Your task to perform on an android device: Open CNN.com Image 0: 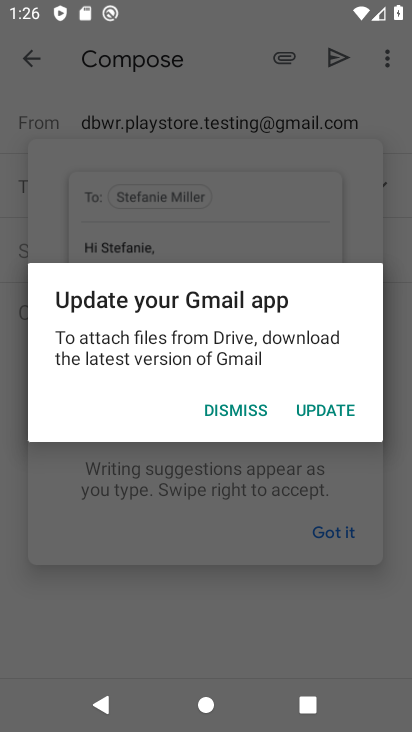
Step 0: press home button
Your task to perform on an android device: Open CNN.com Image 1: 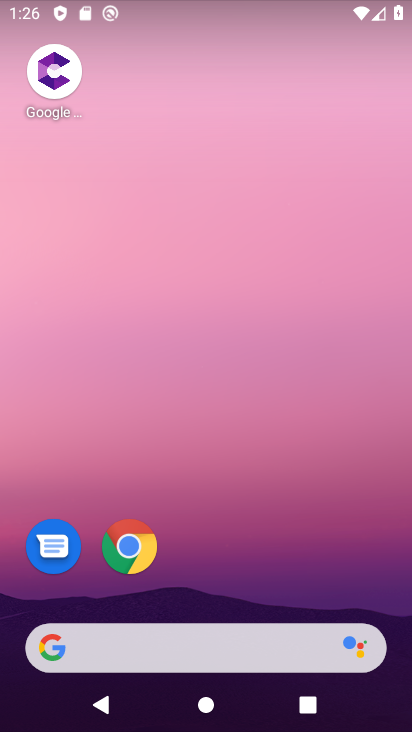
Step 1: click (133, 534)
Your task to perform on an android device: Open CNN.com Image 2: 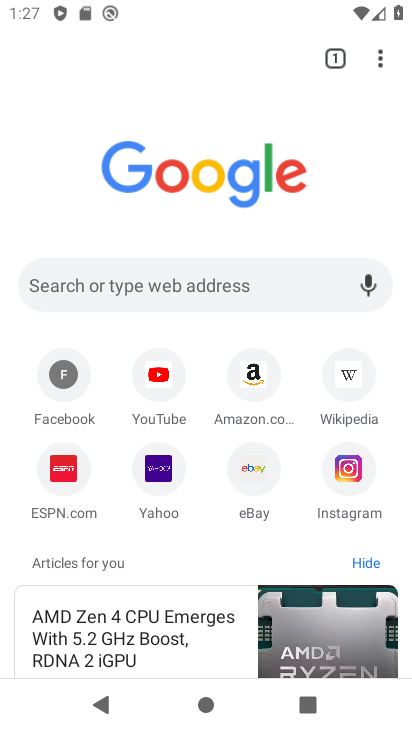
Step 2: click (187, 285)
Your task to perform on an android device: Open CNN.com Image 3: 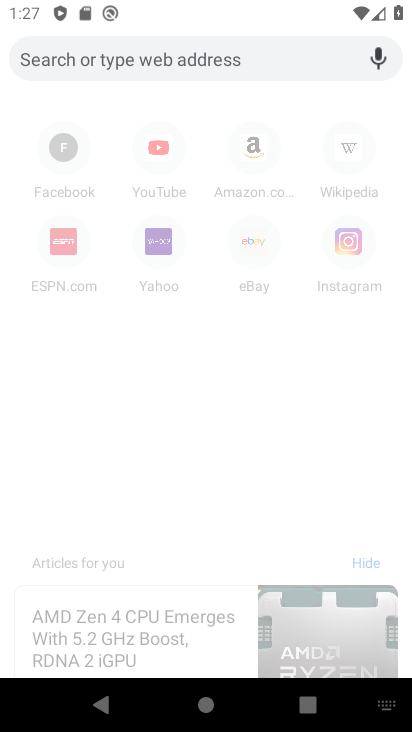
Step 3: type "cnn"
Your task to perform on an android device: Open CNN.com Image 4: 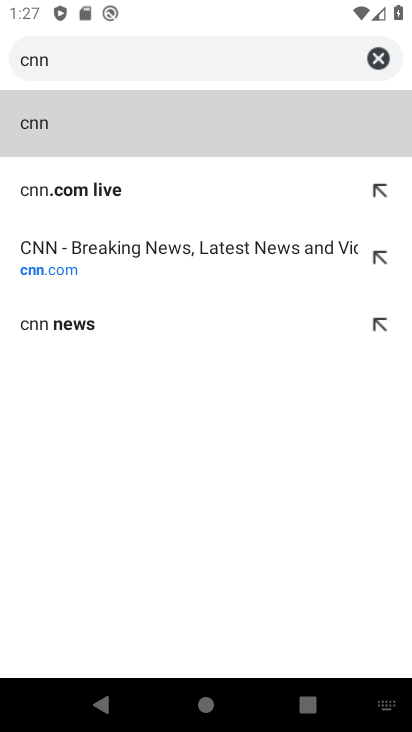
Step 4: click (87, 250)
Your task to perform on an android device: Open CNN.com Image 5: 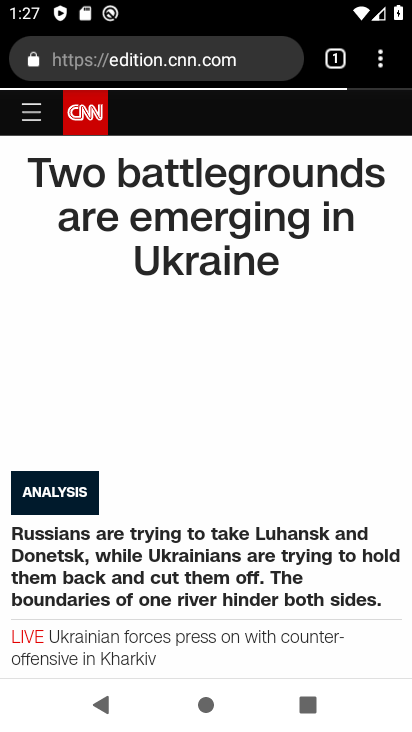
Step 5: task complete